Your task to perform on an android device: Open Amazon Image 0: 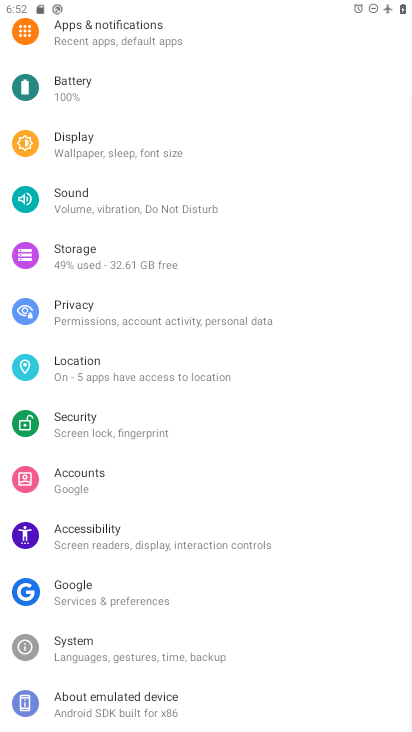
Step 0: press home button
Your task to perform on an android device: Open Amazon Image 1: 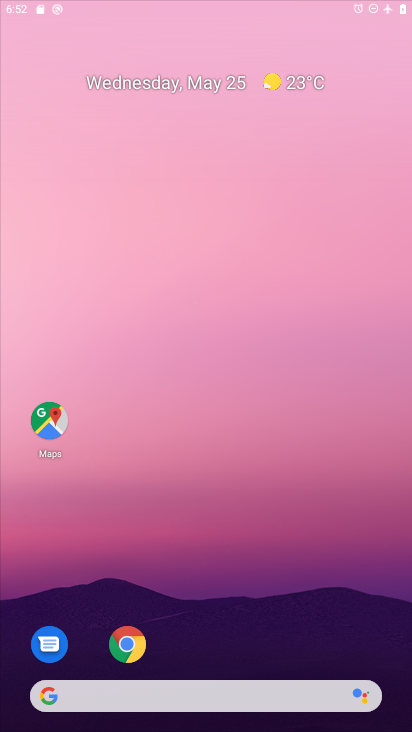
Step 1: drag from (341, 654) to (252, 41)
Your task to perform on an android device: Open Amazon Image 2: 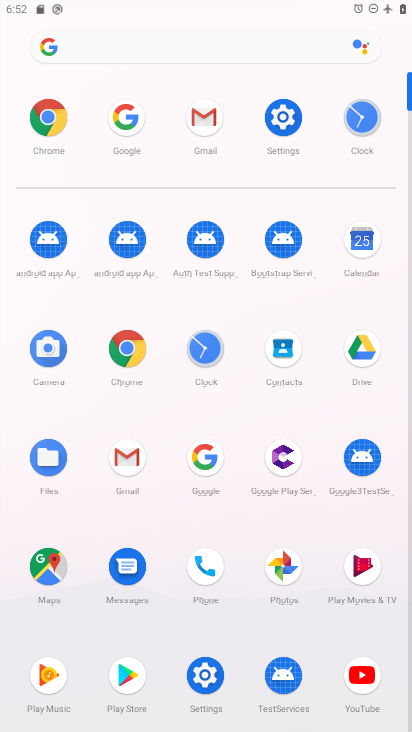
Step 2: click (192, 457)
Your task to perform on an android device: Open Amazon Image 3: 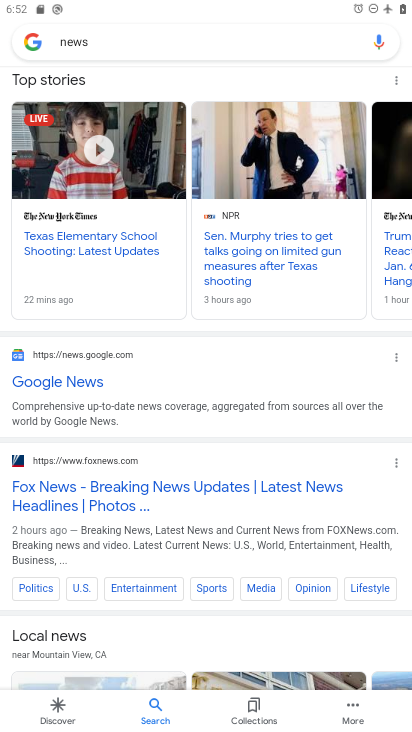
Step 3: press back button
Your task to perform on an android device: Open Amazon Image 4: 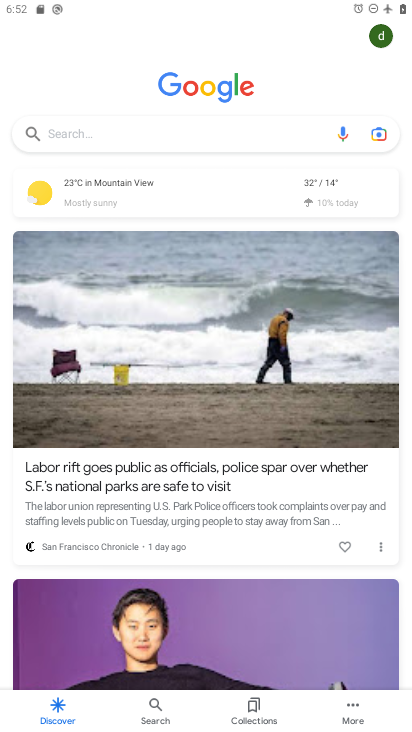
Step 4: click (111, 137)
Your task to perform on an android device: Open Amazon Image 5: 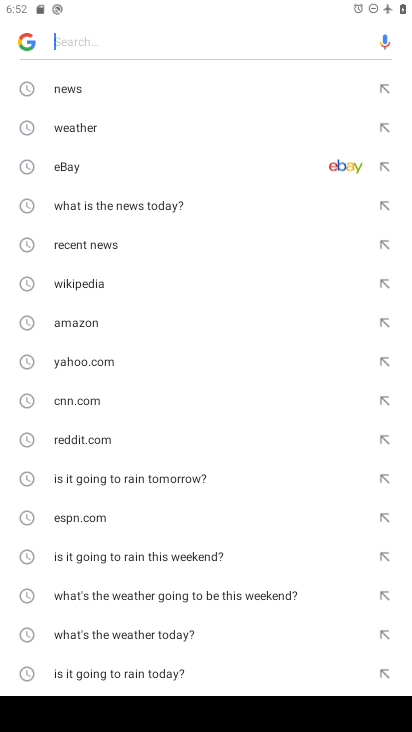
Step 5: click (91, 327)
Your task to perform on an android device: Open Amazon Image 6: 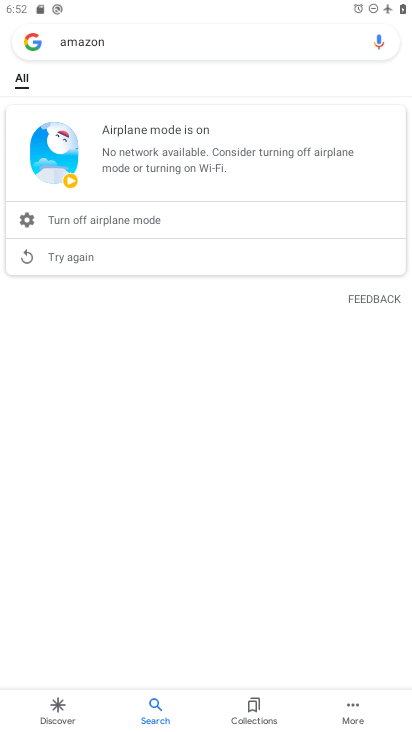
Step 6: task complete